Your task to perform on an android device: Search for flights from San Francisco to Tokyo Image 0: 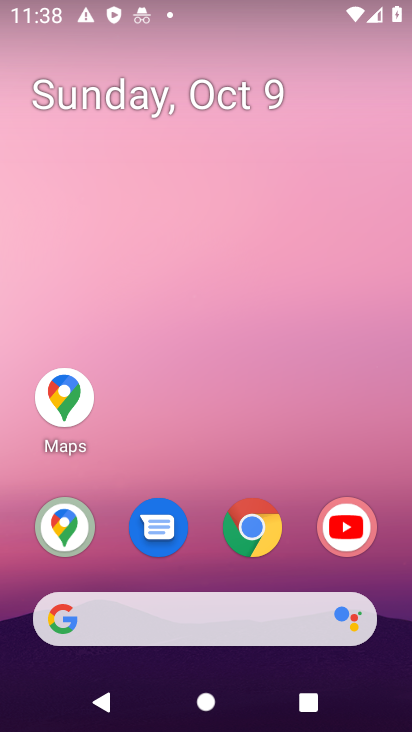
Step 0: click (260, 536)
Your task to perform on an android device: Search for flights from San Francisco to Tokyo Image 1: 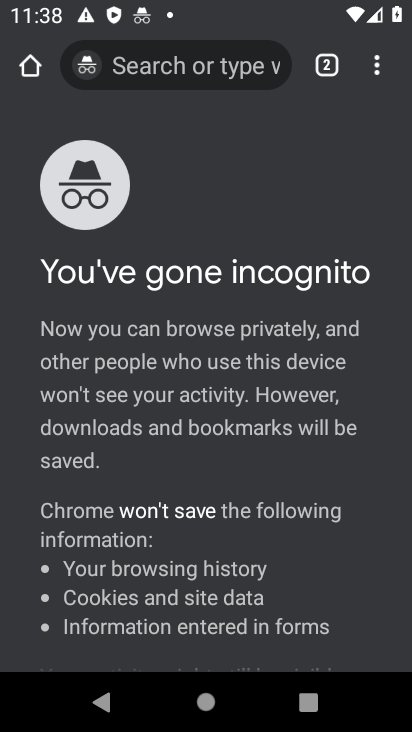
Step 1: click (202, 63)
Your task to perform on an android device: Search for flights from San Francisco to Tokyo Image 2: 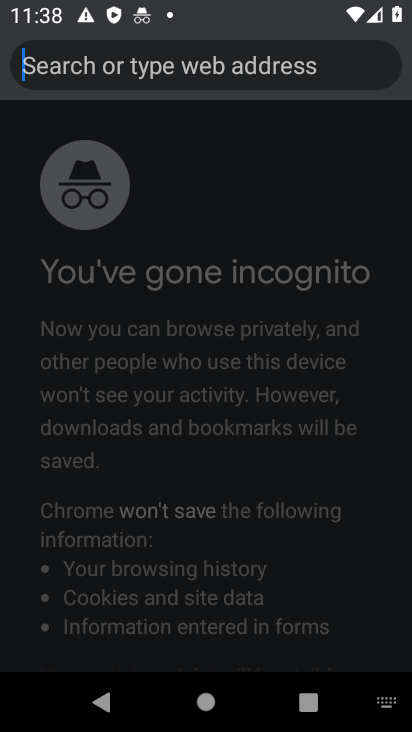
Step 2: type "flights from San Francisco to Tokyo"
Your task to perform on an android device: Search for flights from San Francisco to Tokyo Image 3: 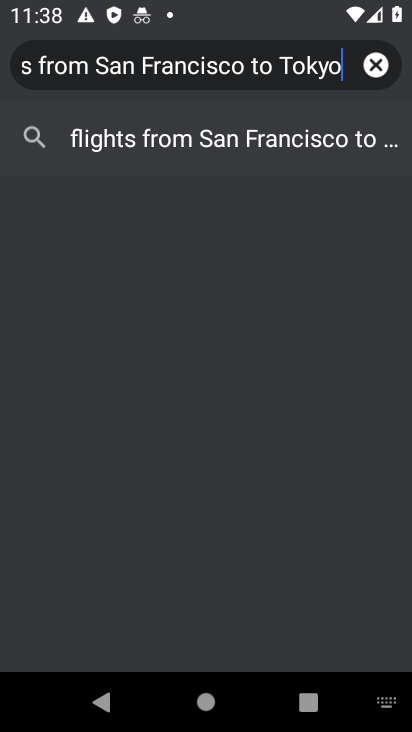
Step 3: click (196, 139)
Your task to perform on an android device: Search for flights from San Francisco to Tokyo Image 4: 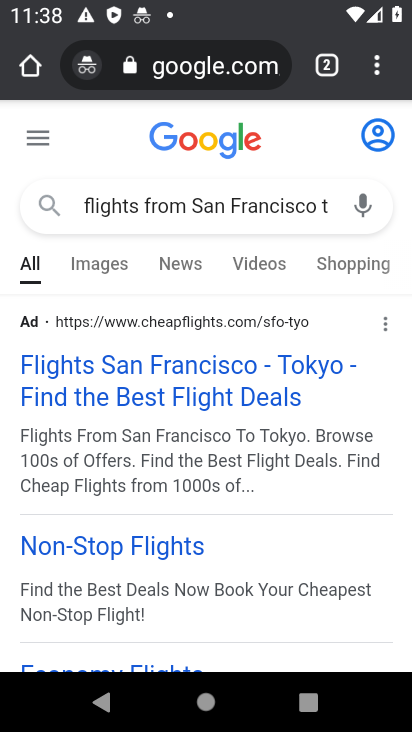
Step 4: click (231, 397)
Your task to perform on an android device: Search for flights from San Francisco to Tokyo Image 5: 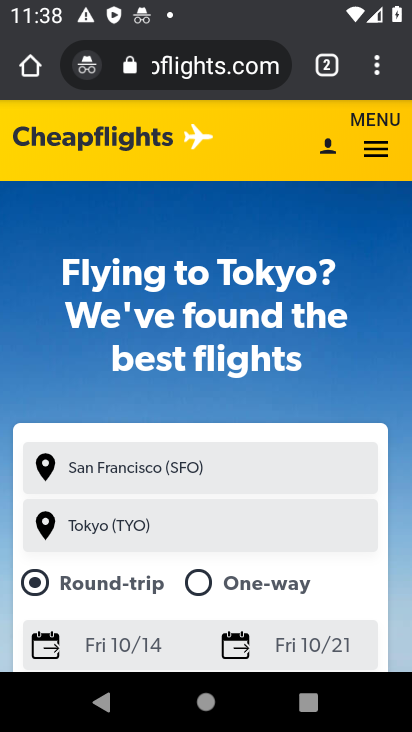
Step 5: task complete